Your task to perform on an android device: Open Google Image 0: 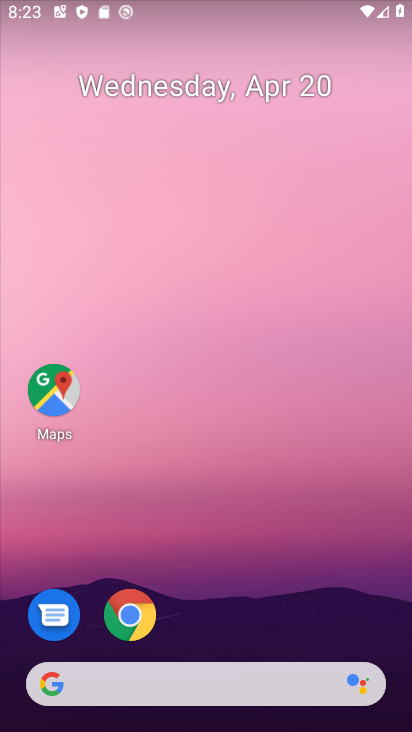
Step 0: drag from (195, 523) to (321, 53)
Your task to perform on an android device: Open Google Image 1: 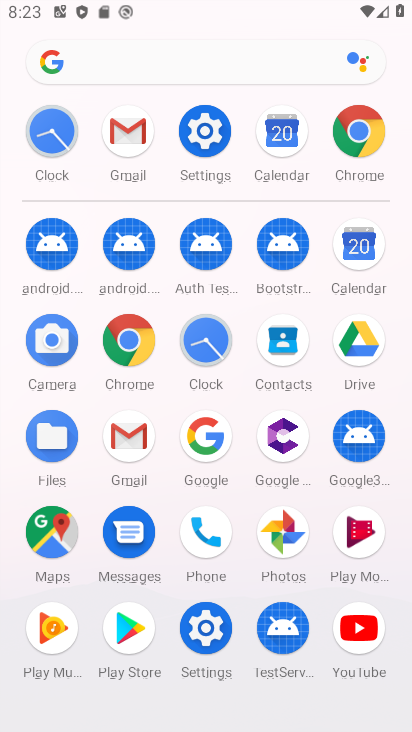
Step 1: click (212, 437)
Your task to perform on an android device: Open Google Image 2: 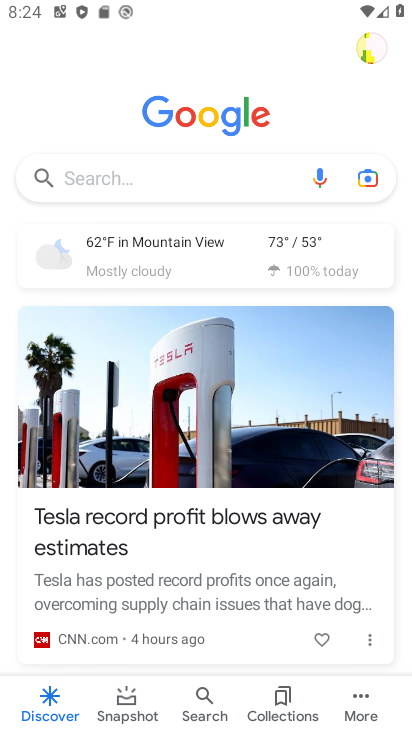
Step 2: task complete